Your task to perform on an android device: Go to Google Image 0: 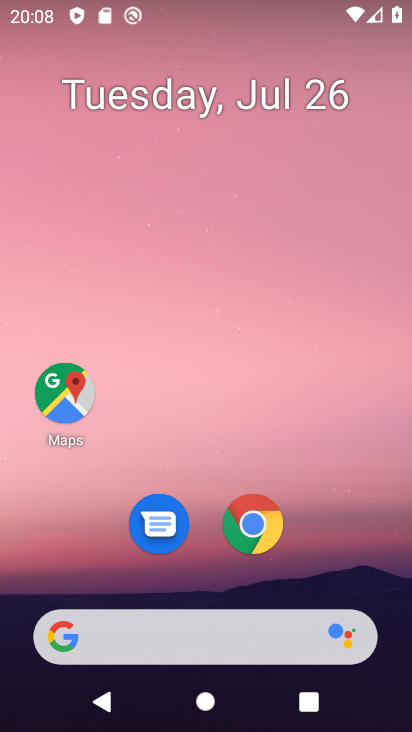
Step 0: press home button
Your task to perform on an android device: Go to Google Image 1: 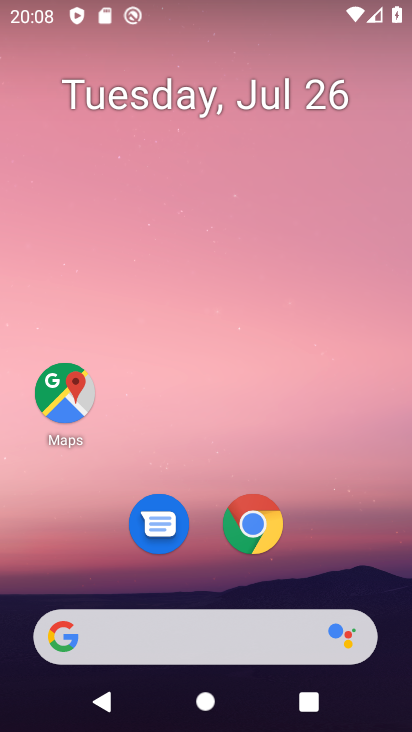
Step 1: drag from (210, 626) to (355, 75)
Your task to perform on an android device: Go to Google Image 2: 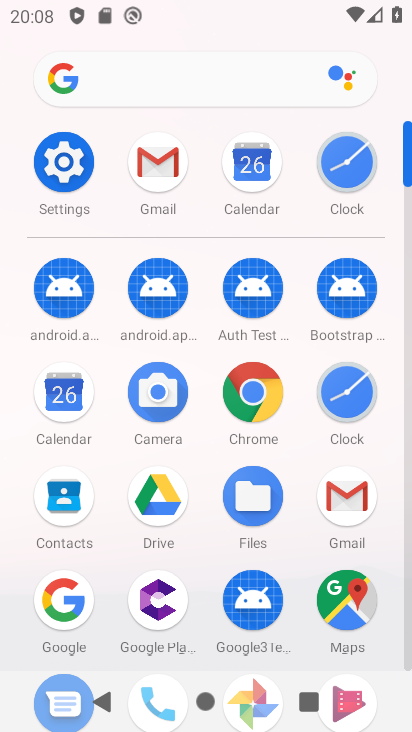
Step 2: click (63, 601)
Your task to perform on an android device: Go to Google Image 3: 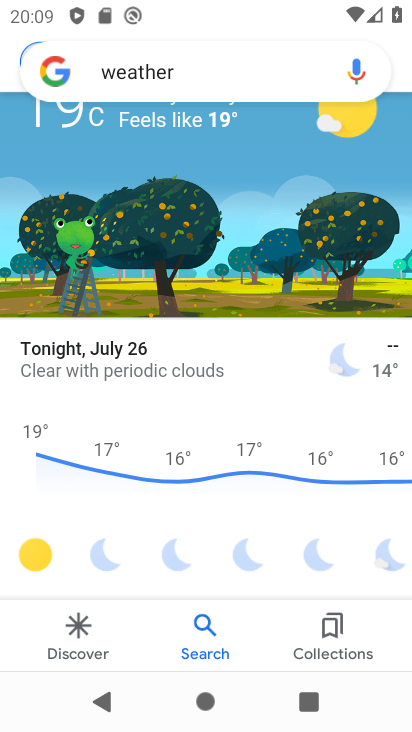
Step 3: task complete